Your task to perform on an android device: Search for Mexican restaurants on Maps Image 0: 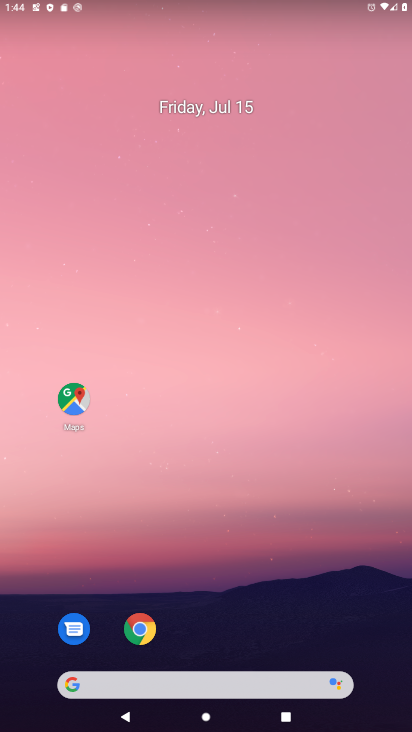
Step 0: drag from (246, 644) to (228, 128)
Your task to perform on an android device: Search for Mexican restaurants on Maps Image 1: 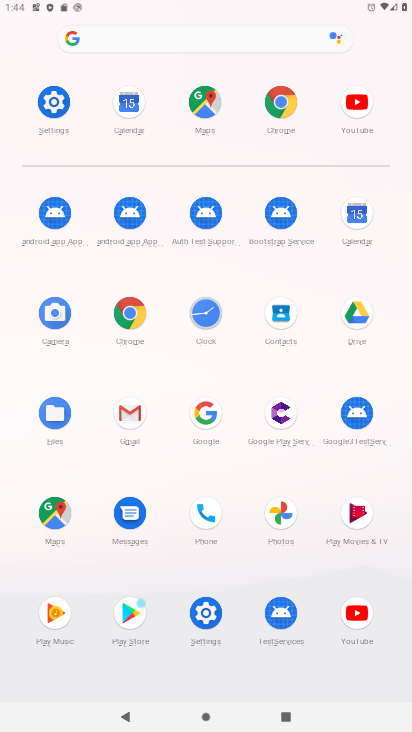
Step 1: click (196, 105)
Your task to perform on an android device: Search for Mexican restaurants on Maps Image 2: 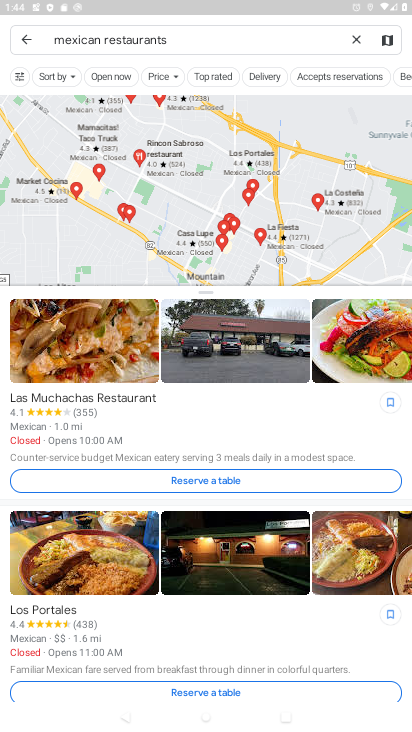
Step 2: task complete